Your task to perform on an android device: Open Yahoo.com Image 0: 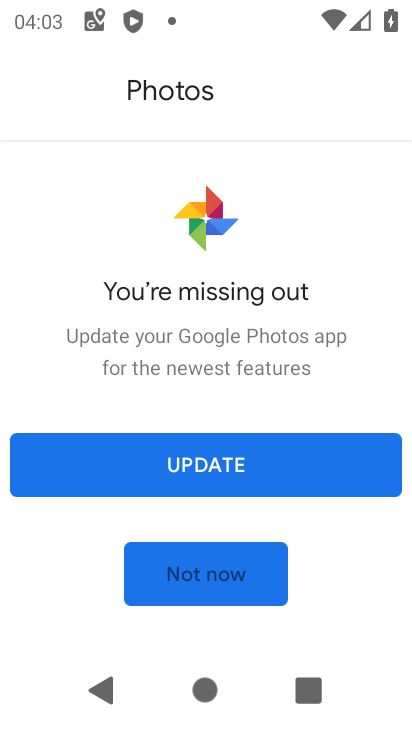
Step 0: press home button
Your task to perform on an android device: Open Yahoo.com Image 1: 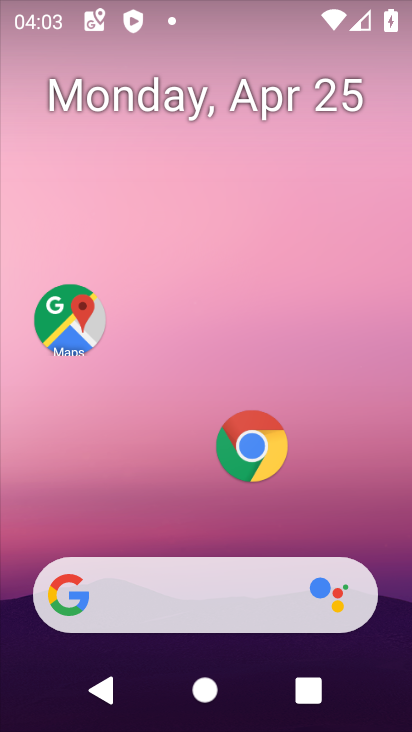
Step 1: click (255, 445)
Your task to perform on an android device: Open Yahoo.com Image 2: 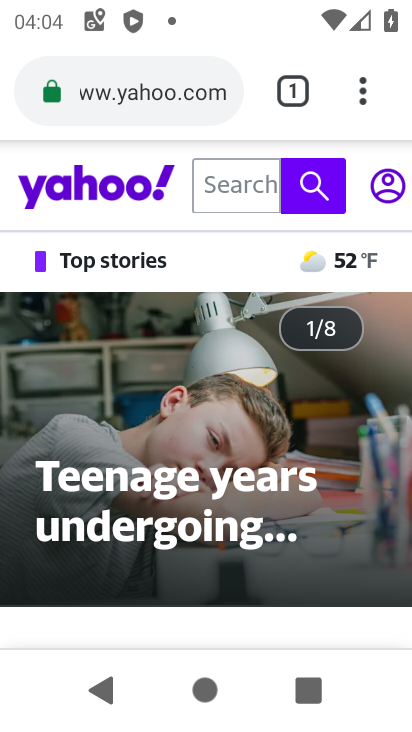
Step 2: task complete